Your task to perform on an android device: Do I have any events today? Image 0: 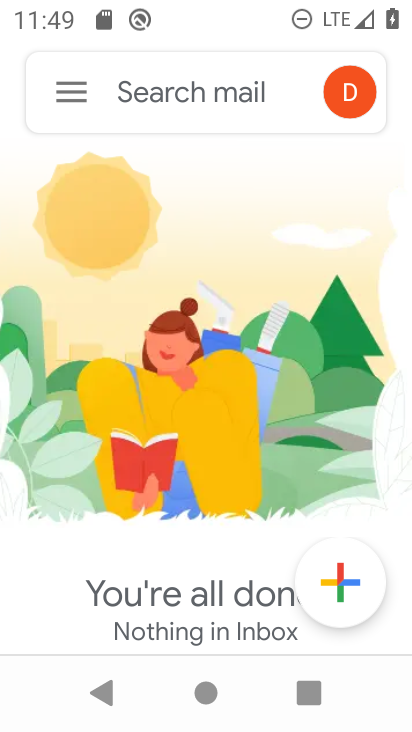
Step 0: press home button
Your task to perform on an android device: Do I have any events today? Image 1: 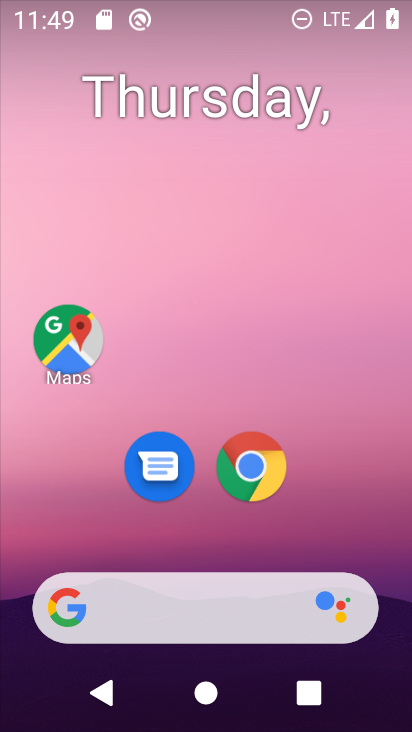
Step 1: drag from (223, 663) to (288, 148)
Your task to perform on an android device: Do I have any events today? Image 2: 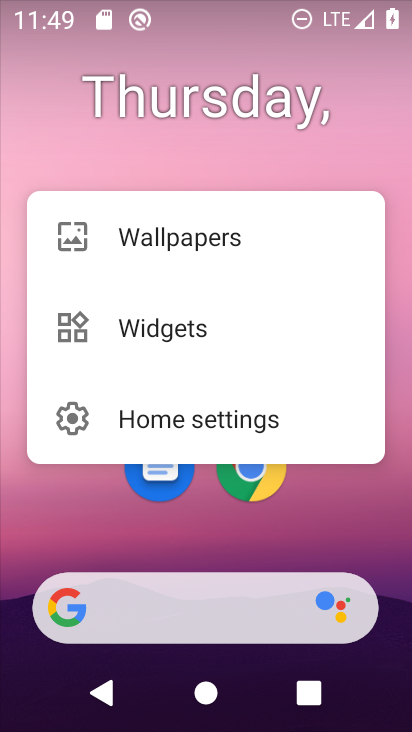
Step 2: click (296, 489)
Your task to perform on an android device: Do I have any events today? Image 3: 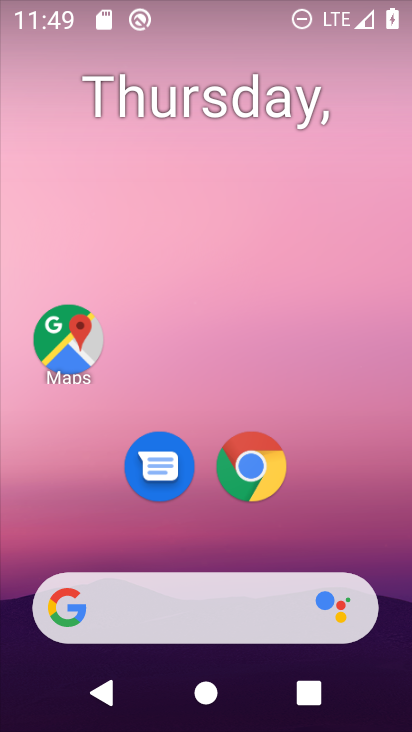
Step 3: drag from (216, 564) to (264, 155)
Your task to perform on an android device: Do I have any events today? Image 4: 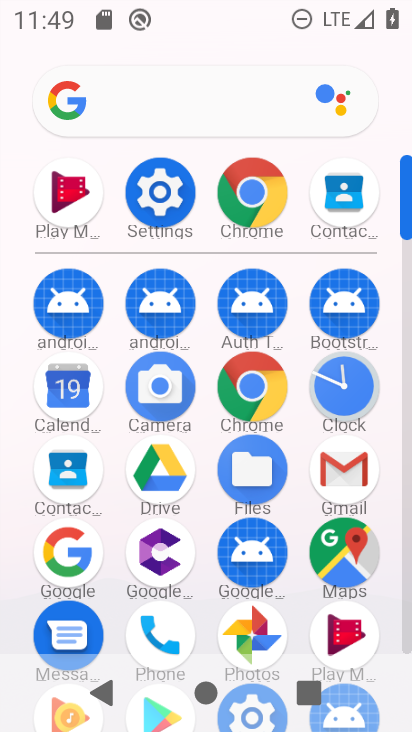
Step 4: click (63, 396)
Your task to perform on an android device: Do I have any events today? Image 5: 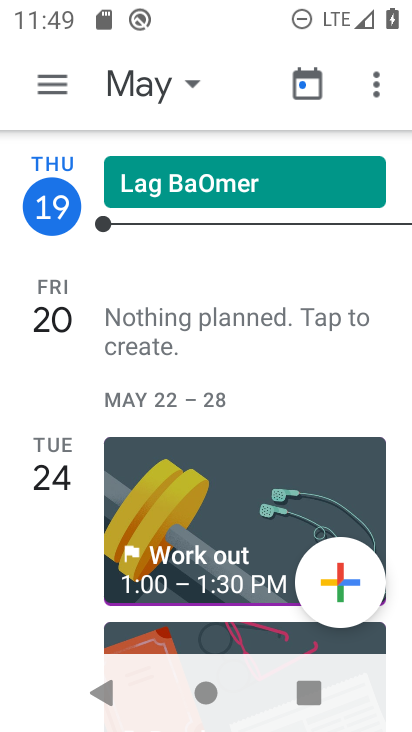
Step 5: click (47, 313)
Your task to perform on an android device: Do I have any events today? Image 6: 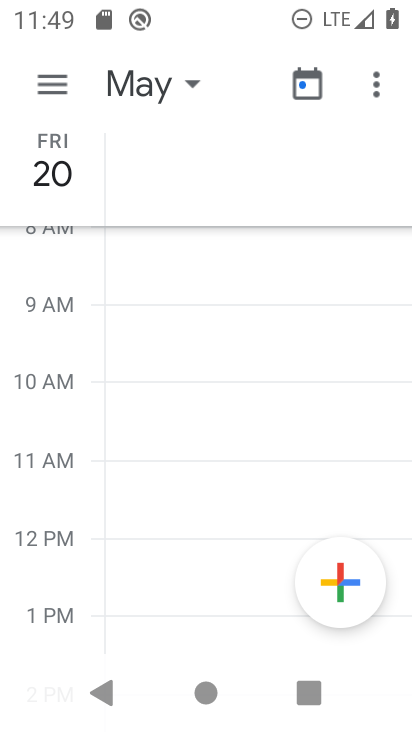
Step 6: task complete